Your task to perform on an android device: turn on improve location accuracy Image 0: 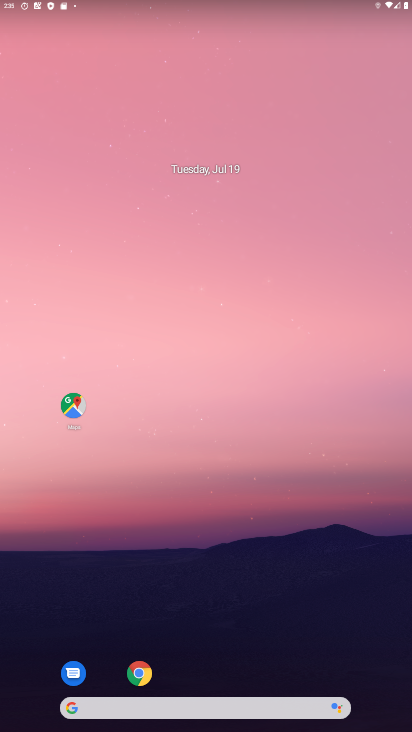
Step 0: drag from (215, 674) to (212, 13)
Your task to perform on an android device: turn on improve location accuracy Image 1: 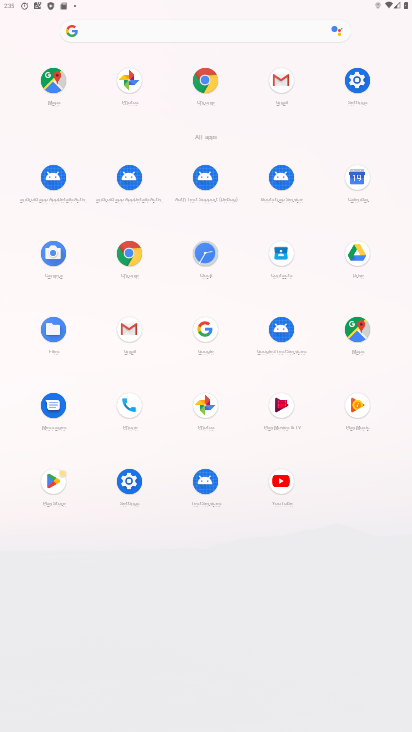
Step 1: click (136, 492)
Your task to perform on an android device: turn on improve location accuracy Image 2: 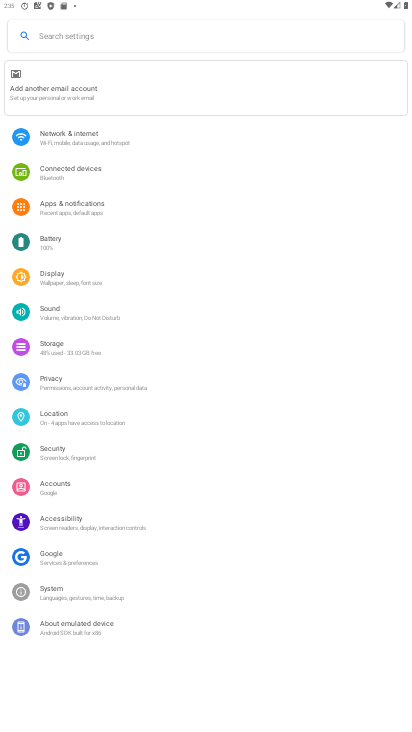
Step 2: click (76, 423)
Your task to perform on an android device: turn on improve location accuracy Image 3: 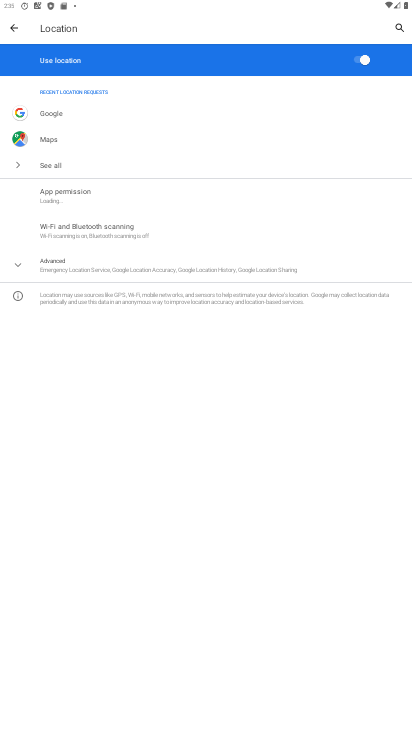
Step 3: click (101, 270)
Your task to perform on an android device: turn on improve location accuracy Image 4: 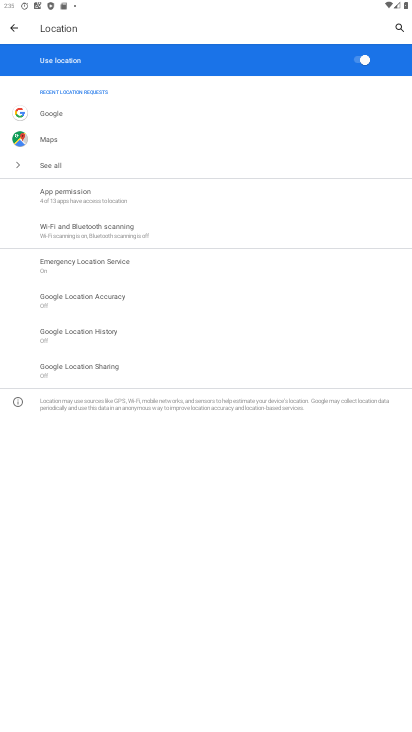
Step 4: click (103, 302)
Your task to perform on an android device: turn on improve location accuracy Image 5: 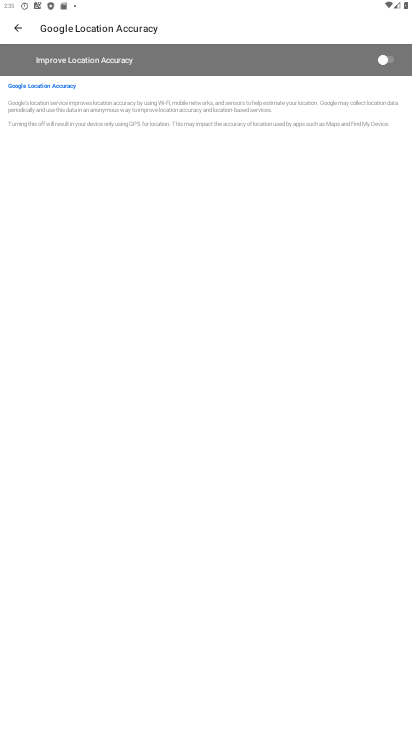
Step 5: click (394, 56)
Your task to perform on an android device: turn on improve location accuracy Image 6: 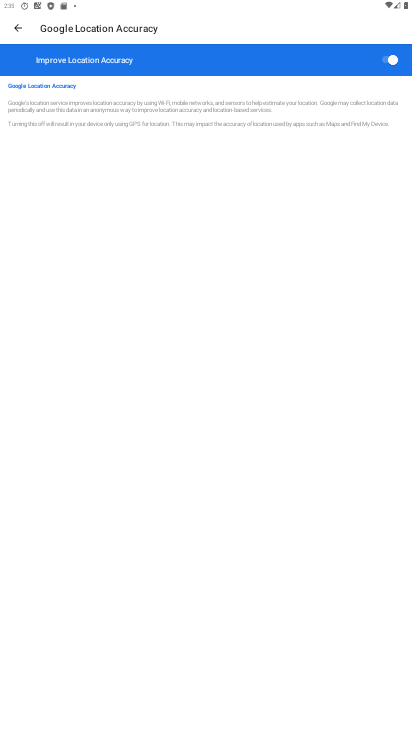
Step 6: task complete